Your task to perform on an android device: Open wifi settings Image 0: 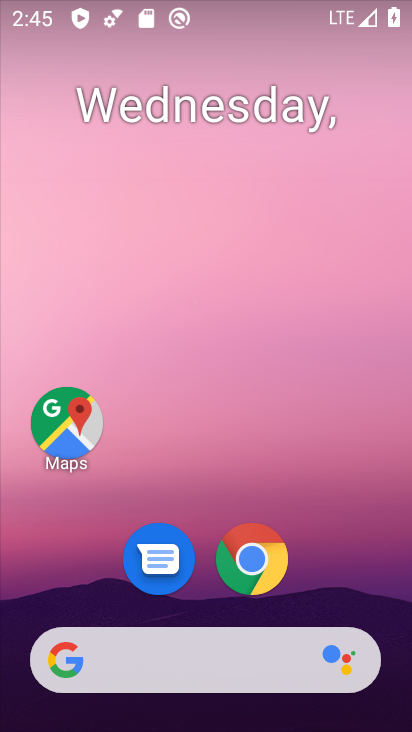
Step 0: drag from (337, 291) to (340, 194)
Your task to perform on an android device: Open wifi settings Image 1: 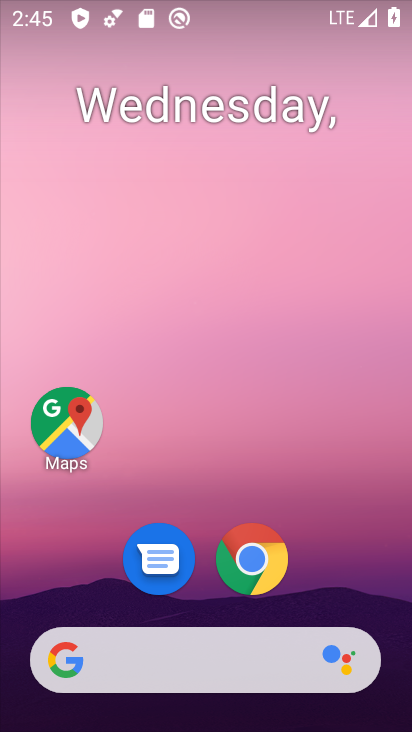
Step 1: drag from (373, 548) to (392, 251)
Your task to perform on an android device: Open wifi settings Image 2: 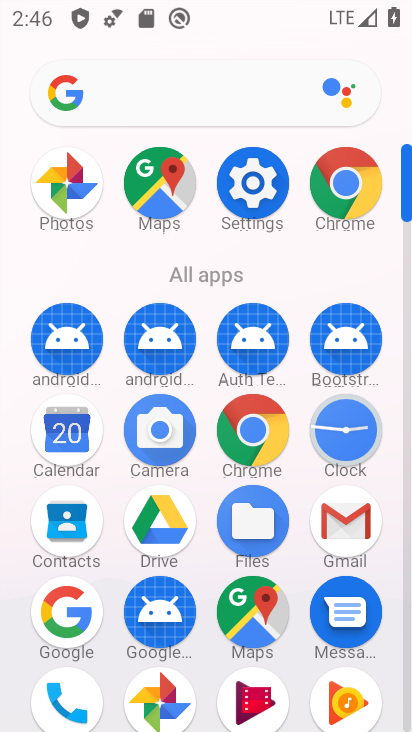
Step 2: click (266, 170)
Your task to perform on an android device: Open wifi settings Image 3: 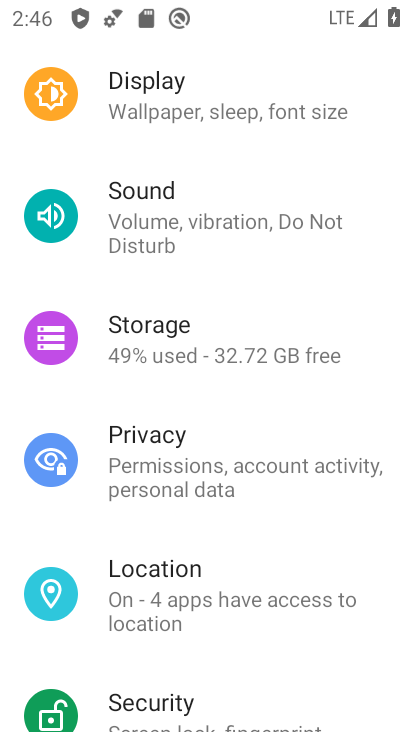
Step 3: drag from (245, 544) to (281, 253)
Your task to perform on an android device: Open wifi settings Image 4: 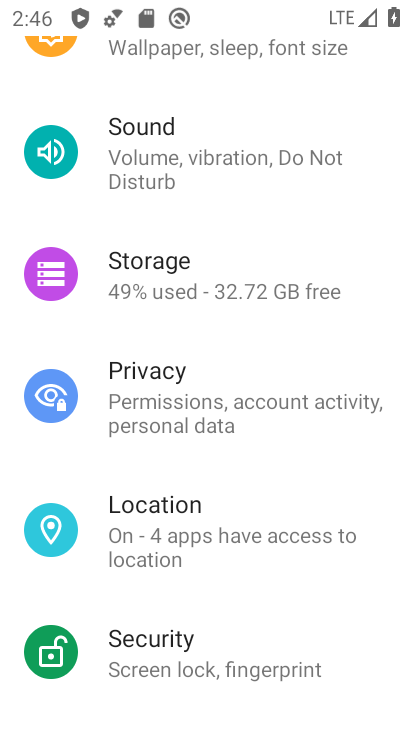
Step 4: drag from (296, 615) to (311, 334)
Your task to perform on an android device: Open wifi settings Image 5: 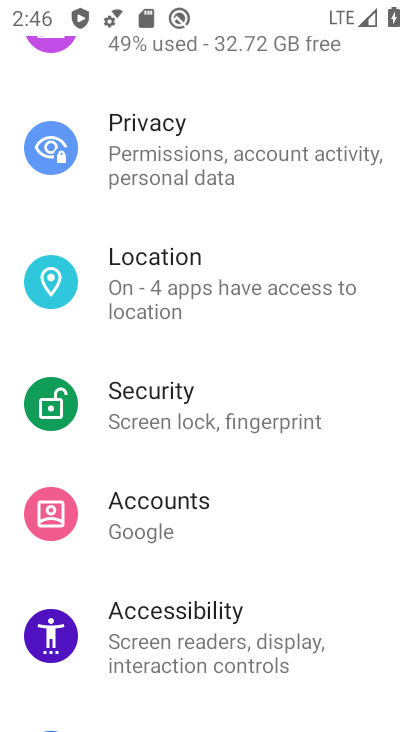
Step 5: drag from (286, 509) to (282, 309)
Your task to perform on an android device: Open wifi settings Image 6: 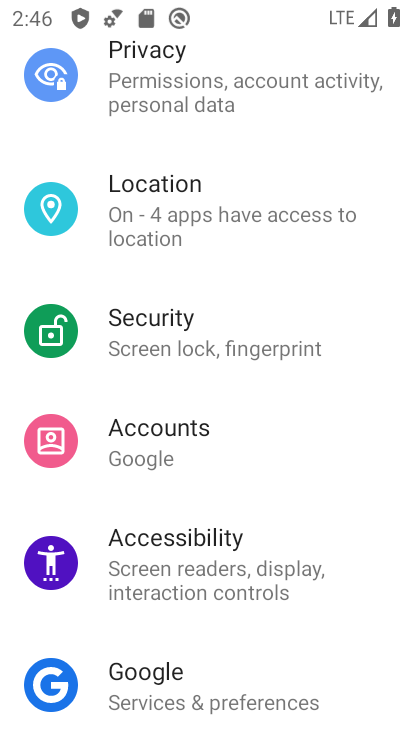
Step 6: drag from (296, 632) to (304, 330)
Your task to perform on an android device: Open wifi settings Image 7: 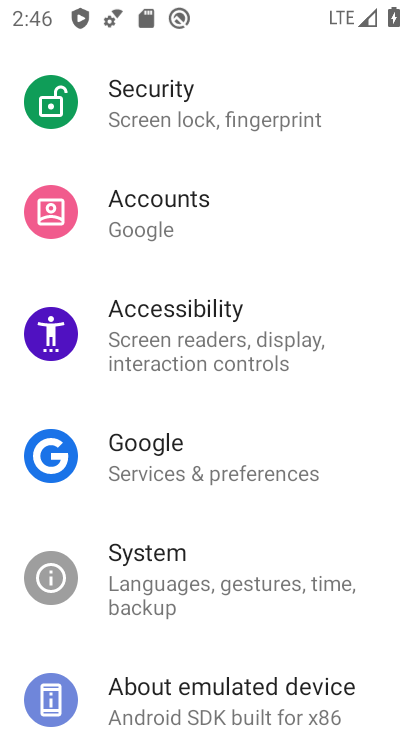
Step 7: drag from (289, 615) to (291, 407)
Your task to perform on an android device: Open wifi settings Image 8: 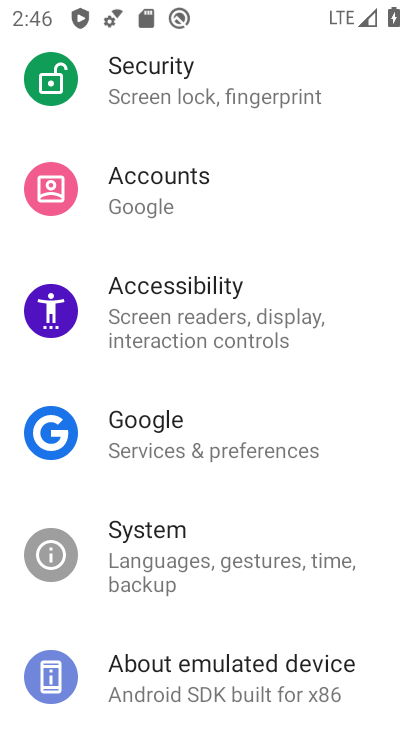
Step 8: drag from (298, 248) to (297, 679)
Your task to perform on an android device: Open wifi settings Image 9: 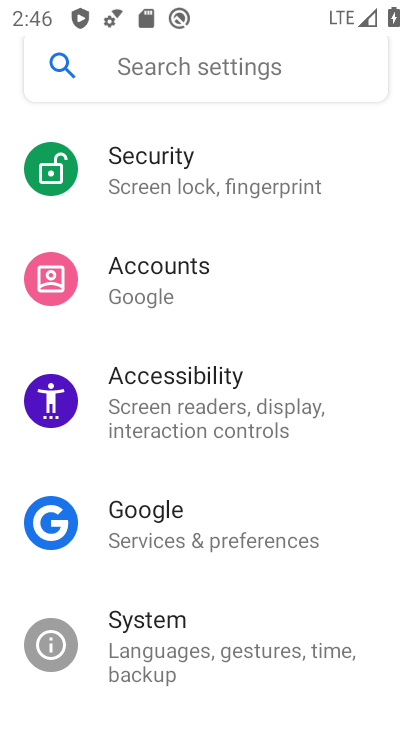
Step 9: drag from (297, 114) to (280, 531)
Your task to perform on an android device: Open wifi settings Image 10: 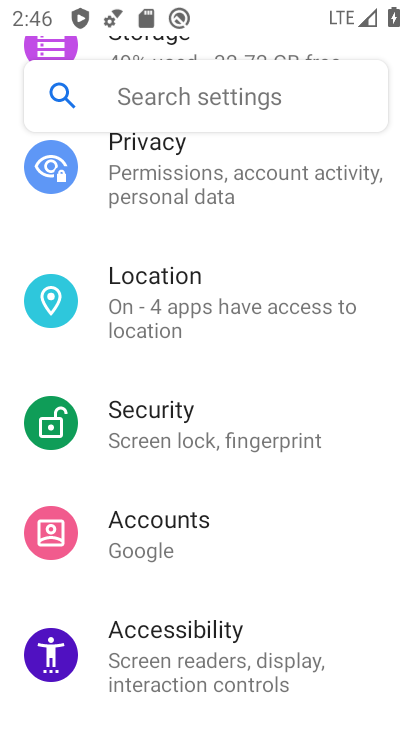
Step 10: drag from (287, 192) to (312, 619)
Your task to perform on an android device: Open wifi settings Image 11: 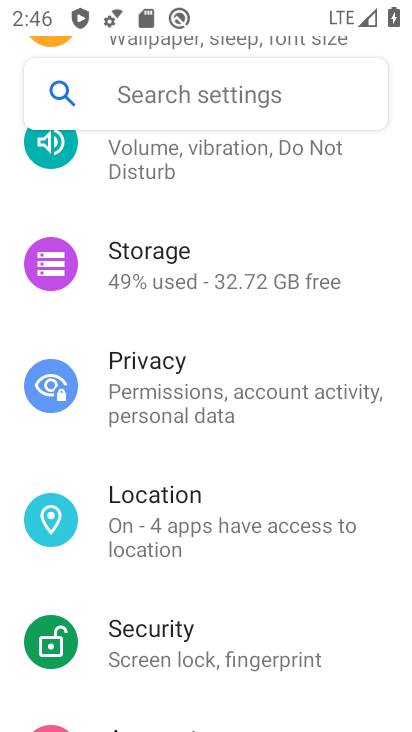
Step 11: drag from (292, 201) to (328, 640)
Your task to perform on an android device: Open wifi settings Image 12: 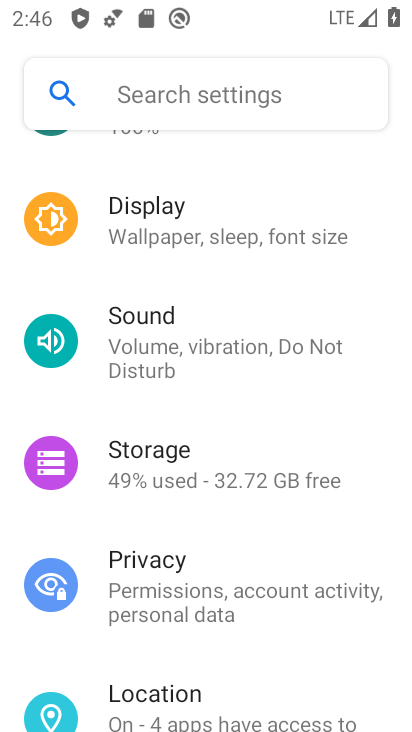
Step 12: drag from (299, 254) to (287, 683)
Your task to perform on an android device: Open wifi settings Image 13: 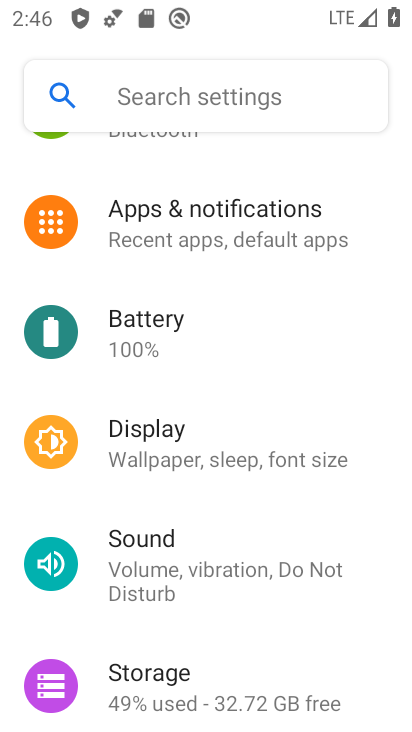
Step 13: drag from (294, 211) to (328, 680)
Your task to perform on an android device: Open wifi settings Image 14: 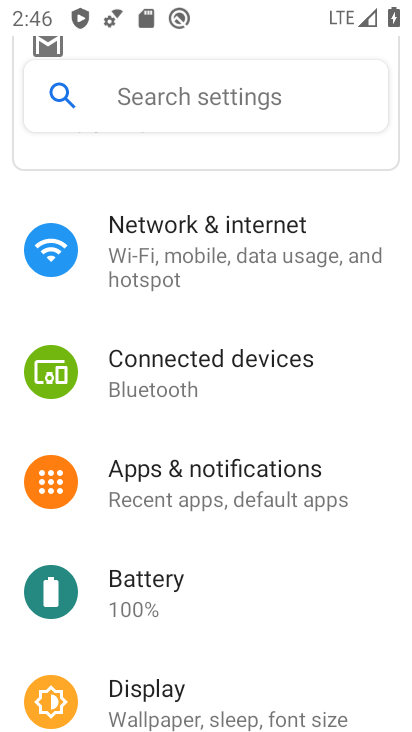
Step 14: click (238, 235)
Your task to perform on an android device: Open wifi settings Image 15: 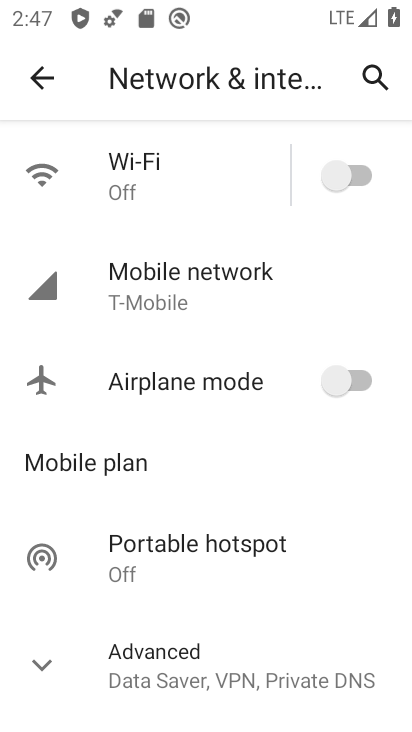
Step 15: click (362, 179)
Your task to perform on an android device: Open wifi settings Image 16: 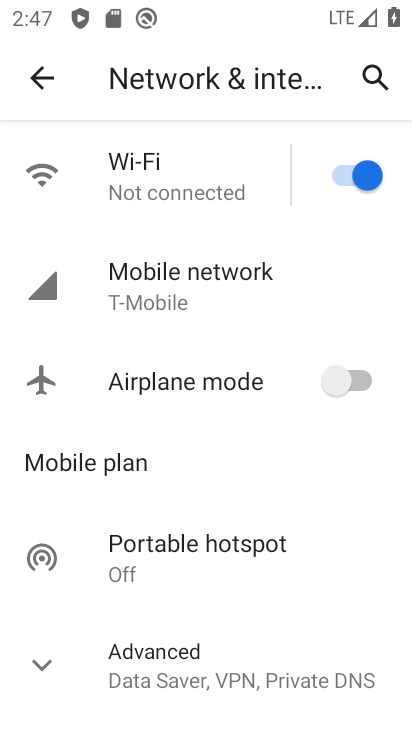
Step 16: task complete